Your task to perform on an android device: What's the time in San Francisco? Image 0: 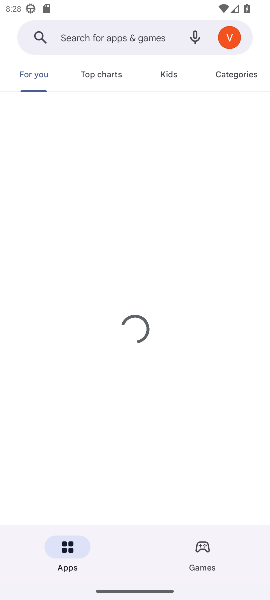
Step 0: press home button
Your task to perform on an android device: What's the time in San Francisco? Image 1: 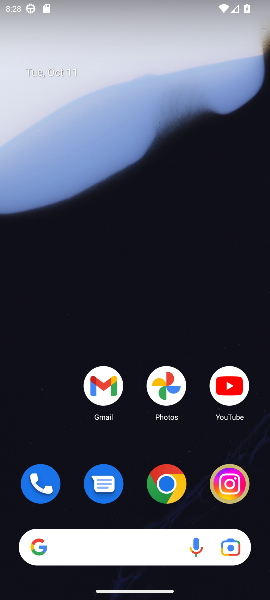
Step 1: click (168, 484)
Your task to perform on an android device: What's the time in San Francisco? Image 2: 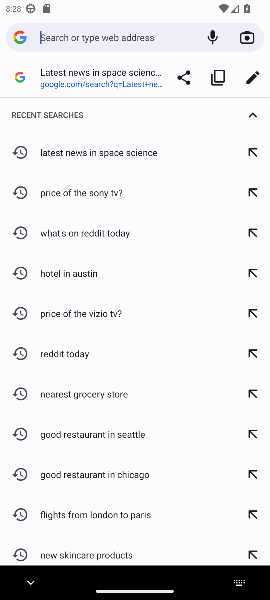
Step 2: click (129, 33)
Your task to perform on an android device: What's the time in San Francisco? Image 3: 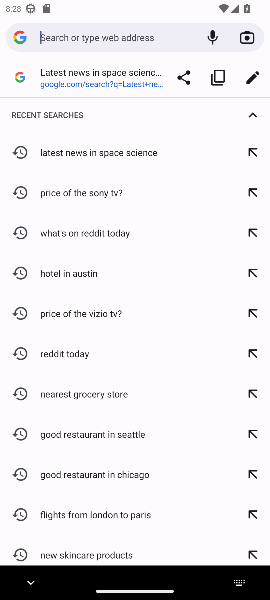
Step 3: type "Time in San Francisco"
Your task to perform on an android device: What's the time in San Francisco? Image 4: 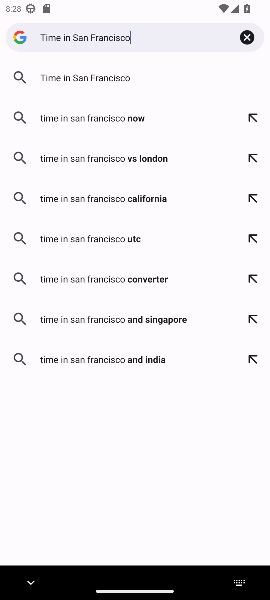
Step 4: click (100, 77)
Your task to perform on an android device: What's the time in San Francisco? Image 5: 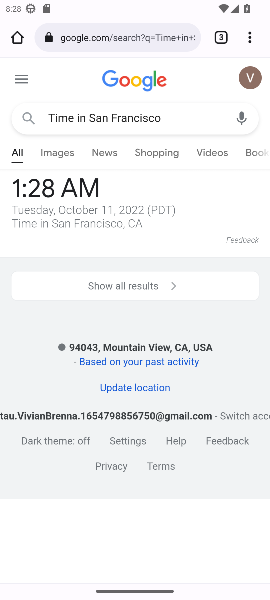
Step 5: task complete